Your task to perform on an android device: What's on my calendar tomorrow? Image 0: 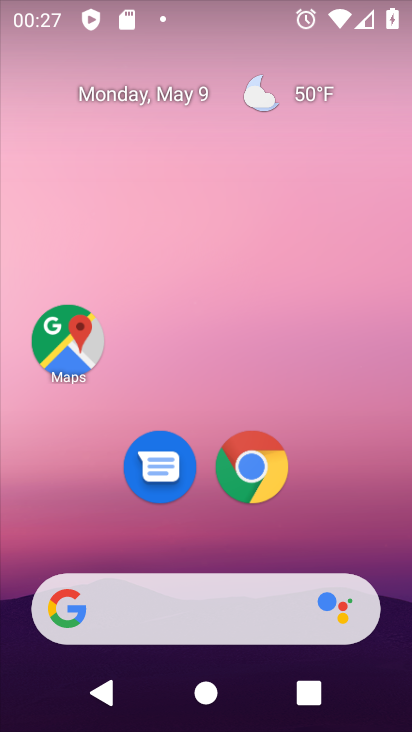
Step 0: drag from (220, 544) to (219, 0)
Your task to perform on an android device: What's on my calendar tomorrow? Image 1: 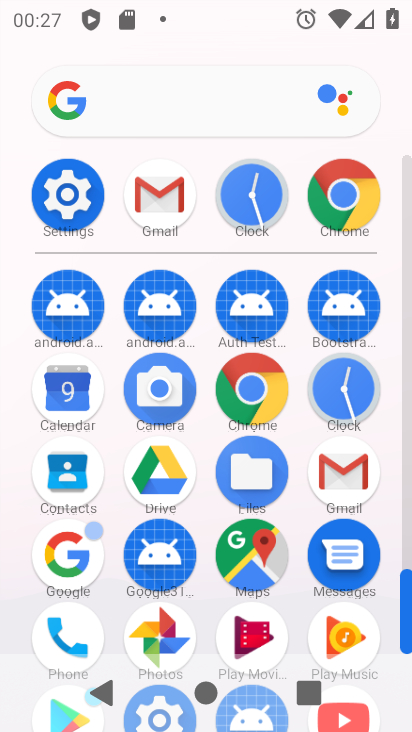
Step 1: click (66, 387)
Your task to perform on an android device: What's on my calendar tomorrow? Image 2: 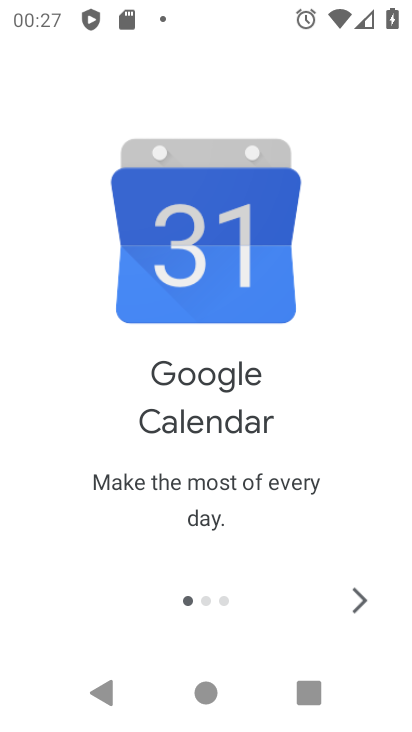
Step 2: click (351, 598)
Your task to perform on an android device: What's on my calendar tomorrow? Image 3: 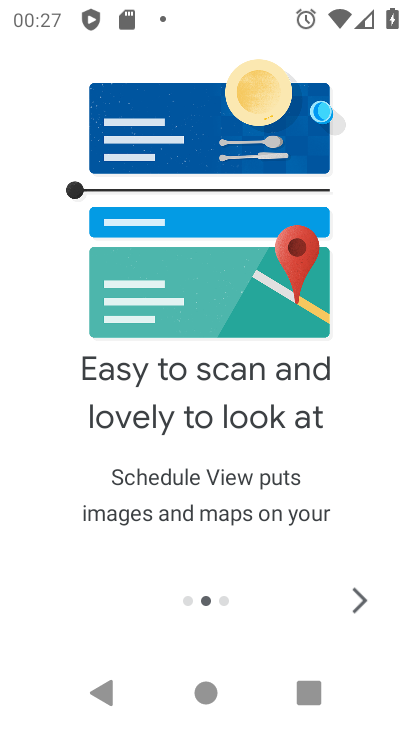
Step 3: click (354, 598)
Your task to perform on an android device: What's on my calendar tomorrow? Image 4: 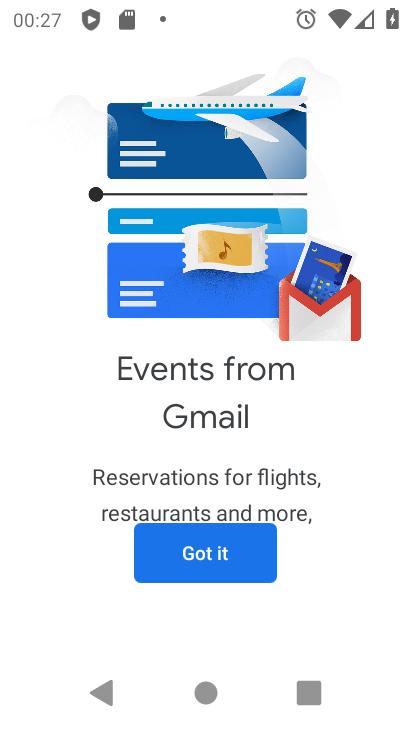
Step 4: click (212, 554)
Your task to perform on an android device: What's on my calendar tomorrow? Image 5: 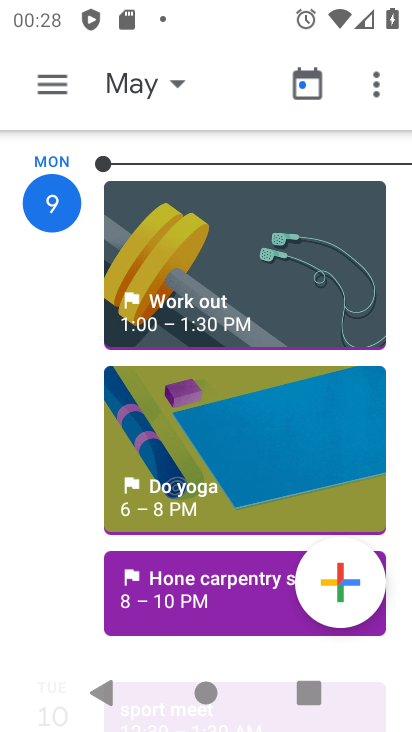
Step 5: drag from (60, 377) to (83, 144)
Your task to perform on an android device: What's on my calendar tomorrow? Image 6: 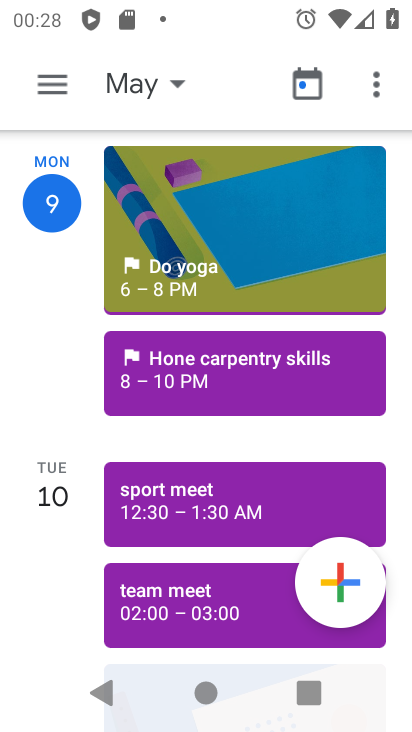
Step 6: click (71, 482)
Your task to perform on an android device: What's on my calendar tomorrow? Image 7: 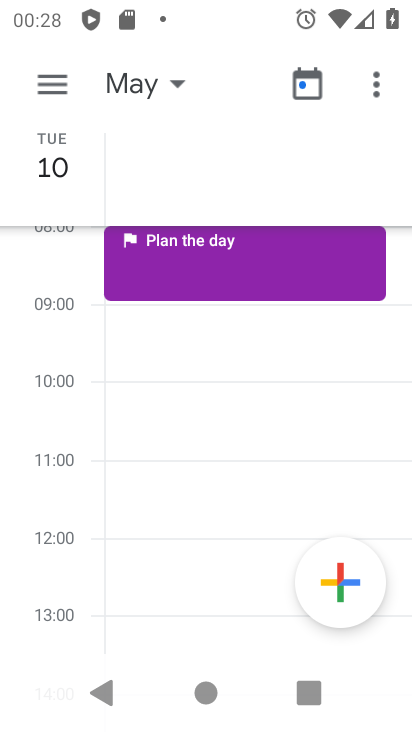
Step 7: task complete